Your task to perform on an android device: Open Chrome and go to settings Image 0: 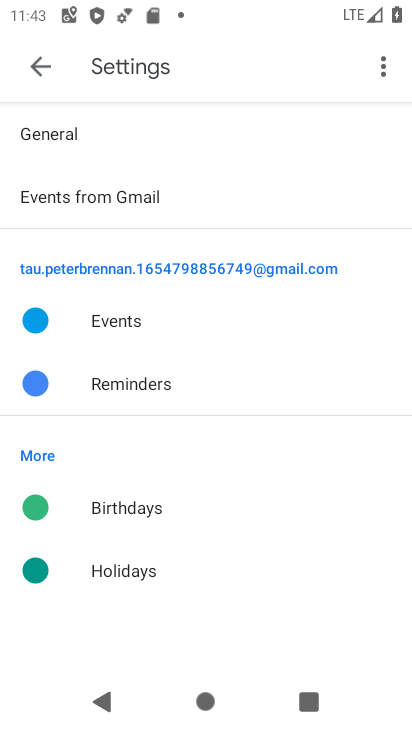
Step 0: press home button
Your task to perform on an android device: Open Chrome and go to settings Image 1: 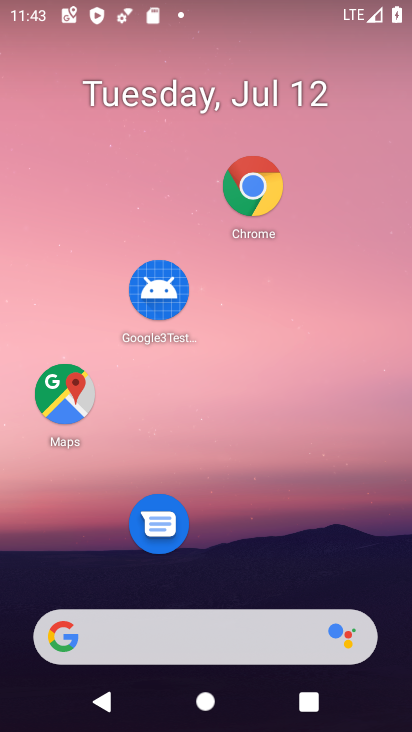
Step 1: click (261, 211)
Your task to perform on an android device: Open Chrome and go to settings Image 2: 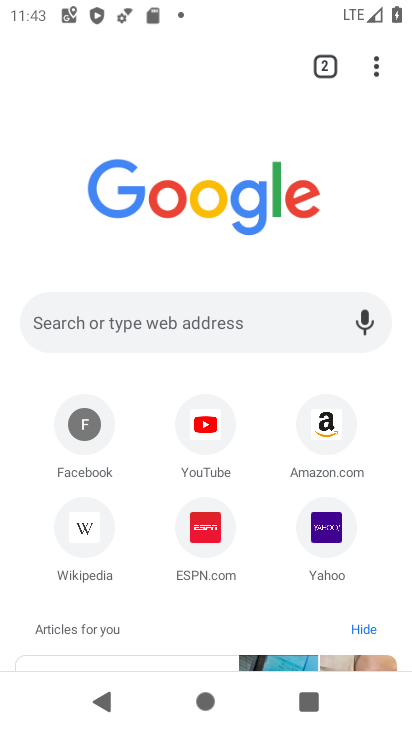
Step 2: click (376, 78)
Your task to perform on an android device: Open Chrome and go to settings Image 3: 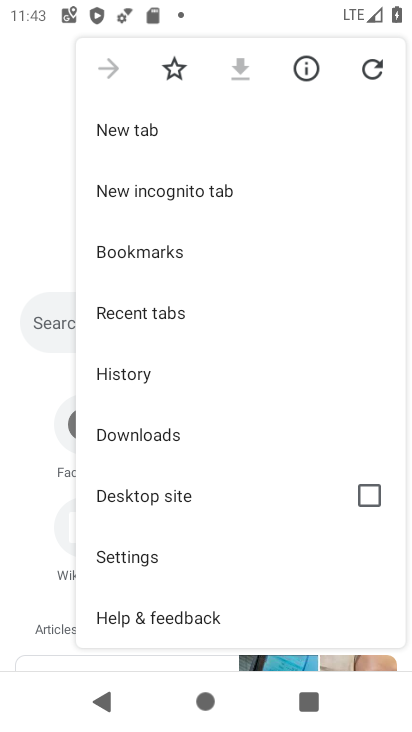
Step 3: click (147, 554)
Your task to perform on an android device: Open Chrome and go to settings Image 4: 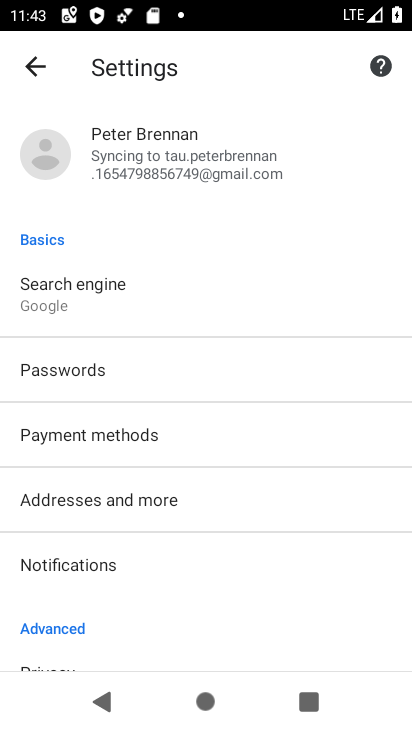
Step 4: task complete